Your task to perform on an android device: Go to Yahoo.com Image 0: 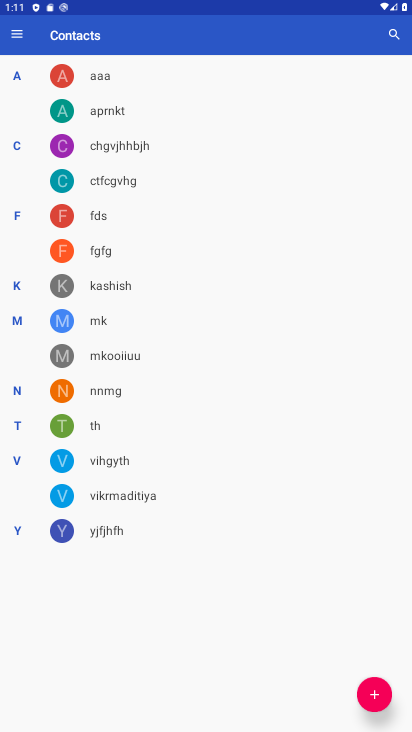
Step 0: press home button
Your task to perform on an android device: Go to Yahoo.com Image 1: 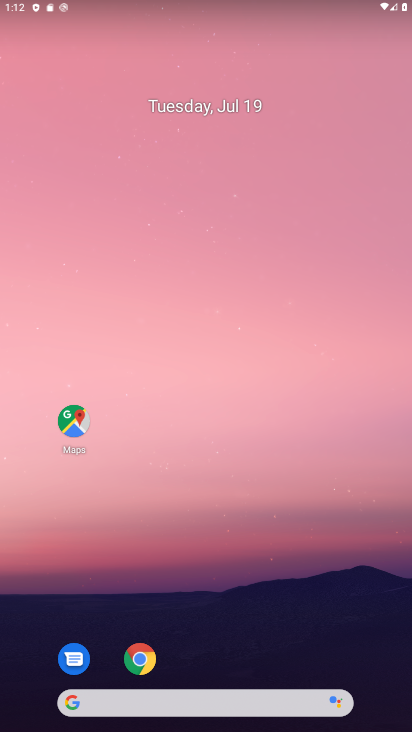
Step 1: click (152, 659)
Your task to perform on an android device: Go to Yahoo.com Image 2: 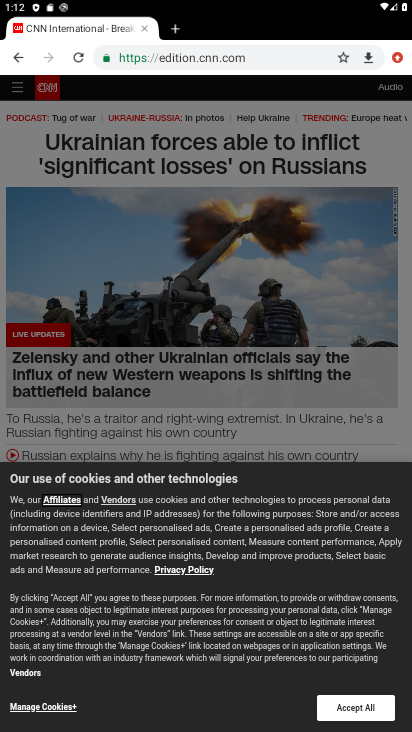
Step 2: click (188, 48)
Your task to perform on an android device: Go to Yahoo.com Image 3: 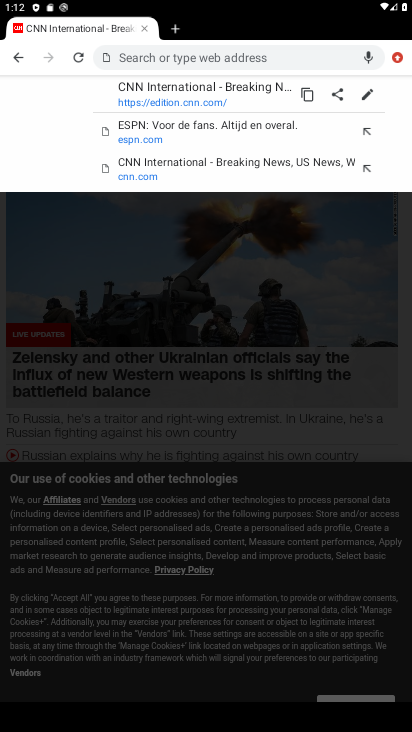
Step 3: type "Yahoo.com"
Your task to perform on an android device: Go to Yahoo.com Image 4: 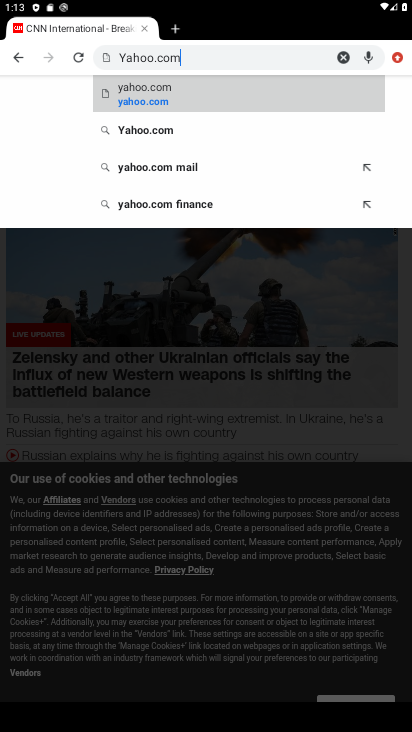
Step 4: type ""
Your task to perform on an android device: Go to Yahoo.com Image 5: 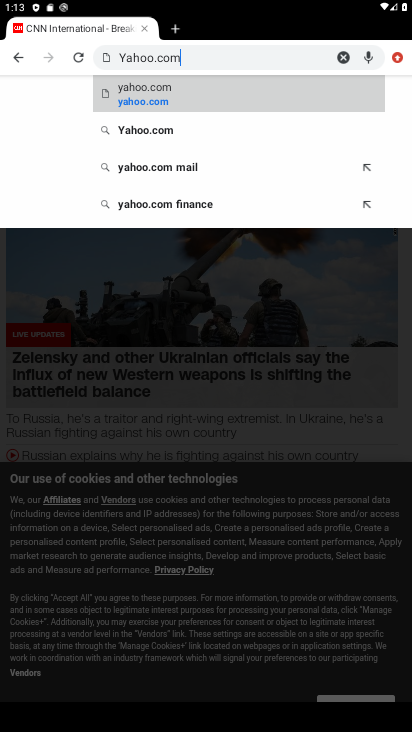
Step 5: click (171, 97)
Your task to perform on an android device: Go to Yahoo.com Image 6: 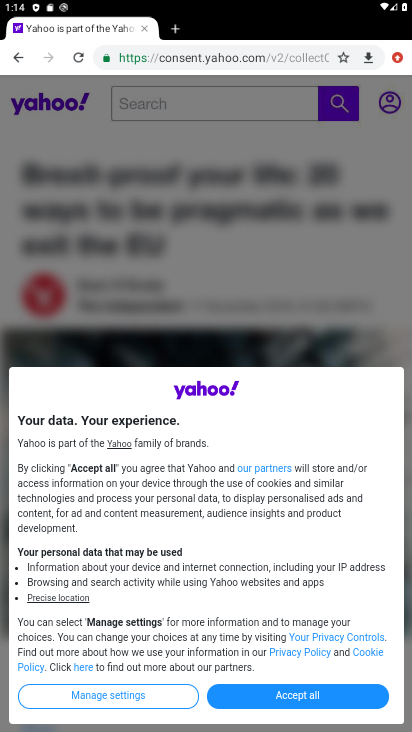
Step 6: task complete